Your task to perform on an android device: What's the weather going to be this weekend? Image 0: 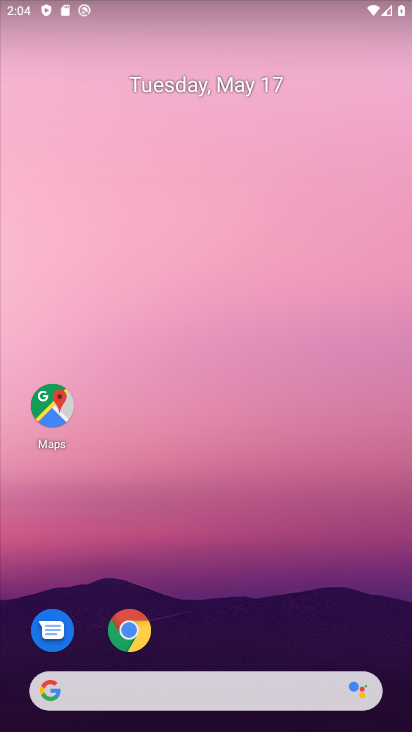
Step 0: drag from (268, 690) to (209, 274)
Your task to perform on an android device: What's the weather going to be this weekend? Image 1: 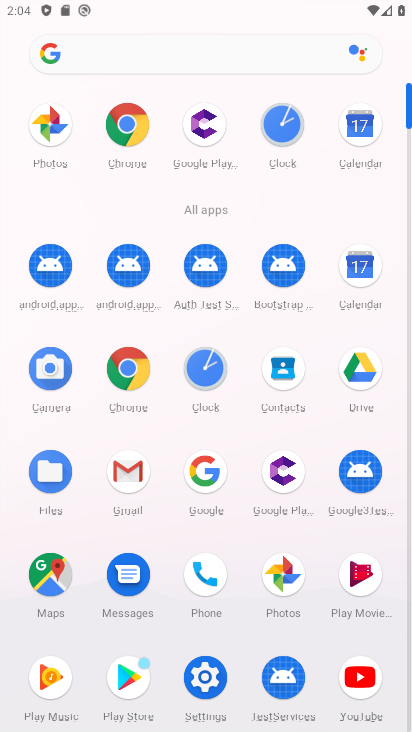
Step 1: press home button
Your task to perform on an android device: What's the weather going to be this weekend? Image 2: 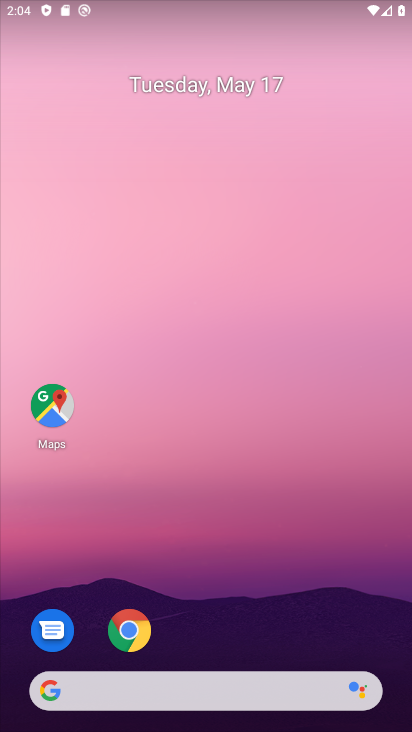
Step 2: drag from (1, 231) to (354, 302)
Your task to perform on an android device: What's the weather going to be this weekend? Image 3: 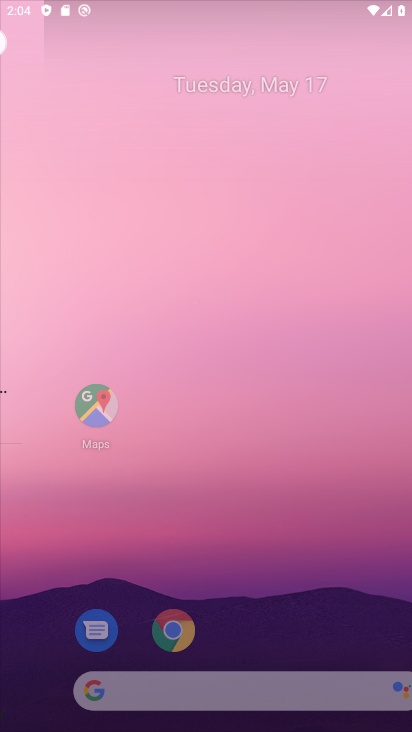
Step 3: drag from (13, 230) to (410, 322)
Your task to perform on an android device: What's the weather going to be this weekend? Image 4: 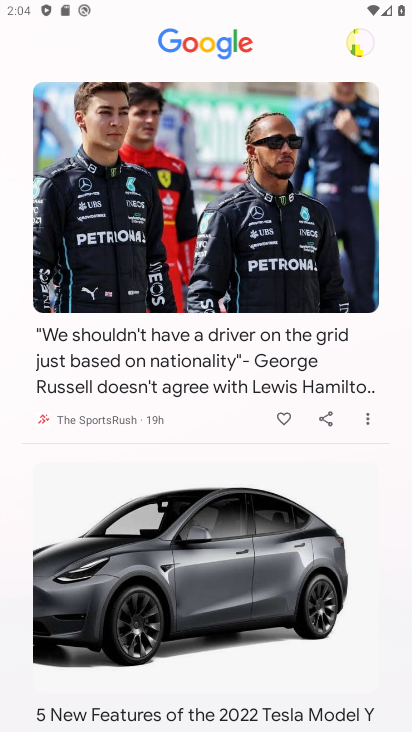
Step 4: drag from (137, 164) to (260, 636)
Your task to perform on an android device: What's the weather going to be this weekend? Image 5: 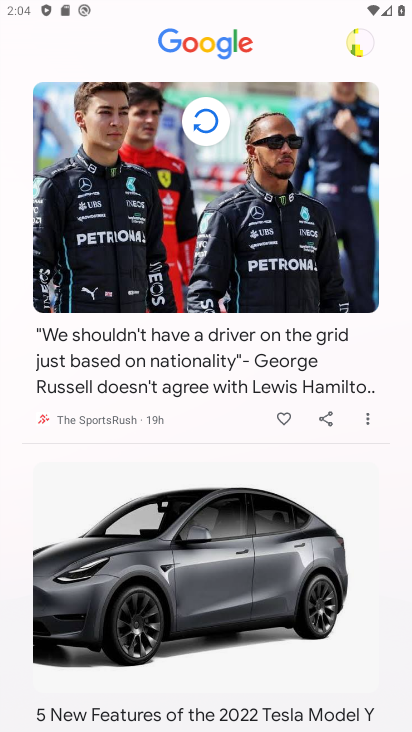
Step 5: drag from (136, 272) to (249, 592)
Your task to perform on an android device: What's the weather going to be this weekend? Image 6: 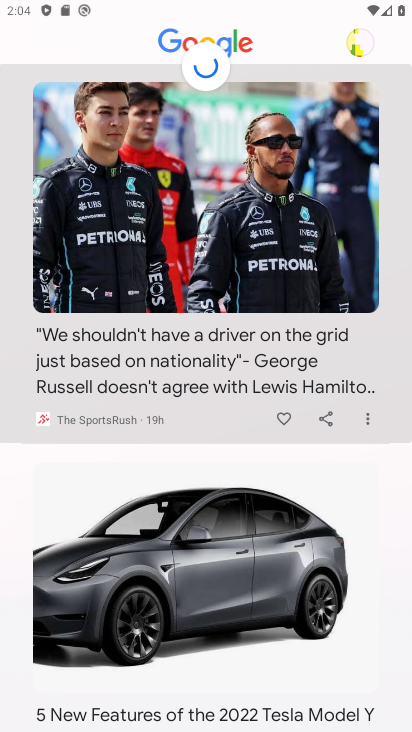
Step 6: drag from (188, 297) to (239, 705)
Your task to perform on an android device: What's the weather going to be this weekend? Image 7: 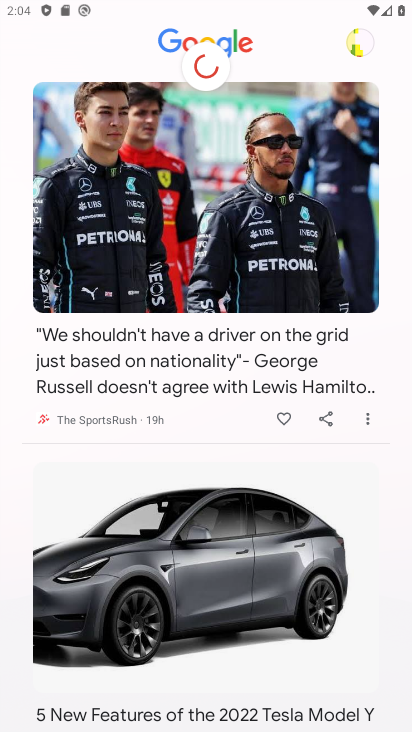
Step 7: drag from (202, 203) to (272, 489)
Your task to perform on an android device: What's the weather going to be this weekend? Image 8: 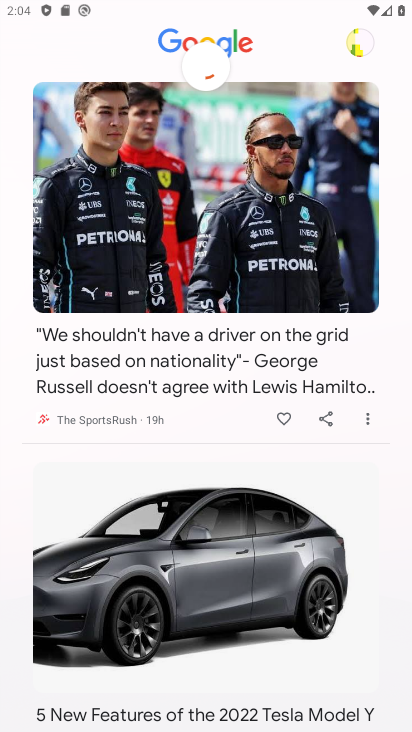
Step 8: drag from (172, 179) to (140, 351)
Your task to perform on an android device: What's the weather going to be this weekend? Image 9: 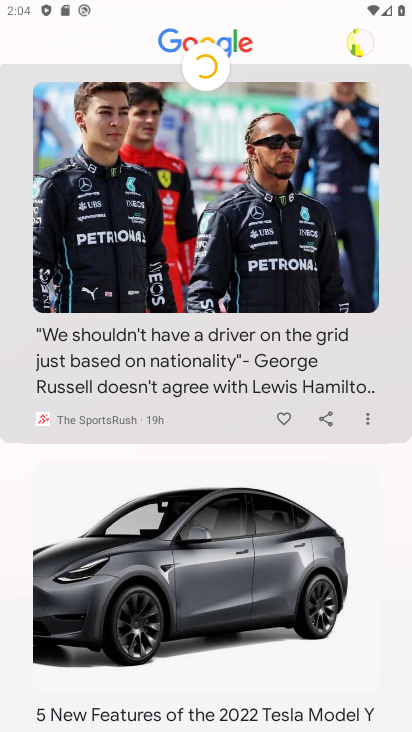
Step 9: drag from (182, 300) to (222, 420)
Your task to perform on an android device: What's the weather going to be this weekend? Image 10: 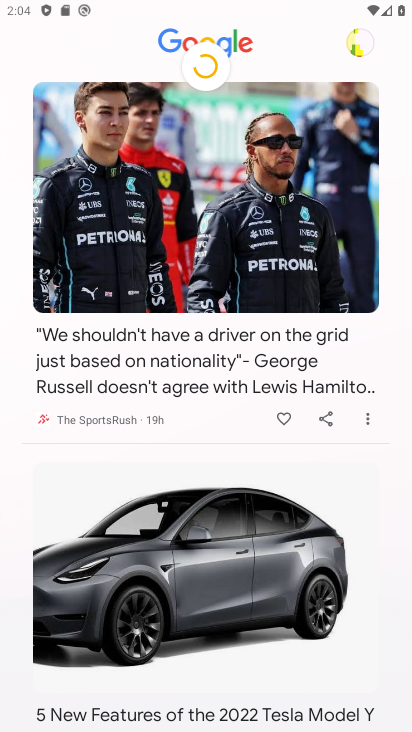
Step 10: drag from (178, 188) to (252, 494)
Your task to perform on an android device: What's the weather going to be this weekend? Image 11: 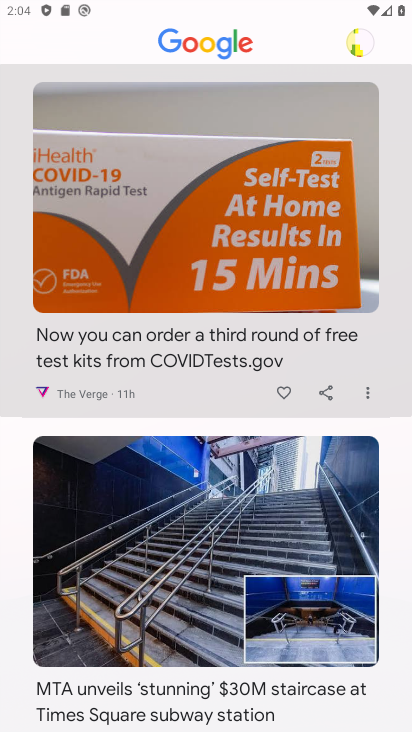
Step 11: drag from (217, 205) to (244, 421)
Your task to perform on an android device: What's the weather going to be this weekend? Image 12: 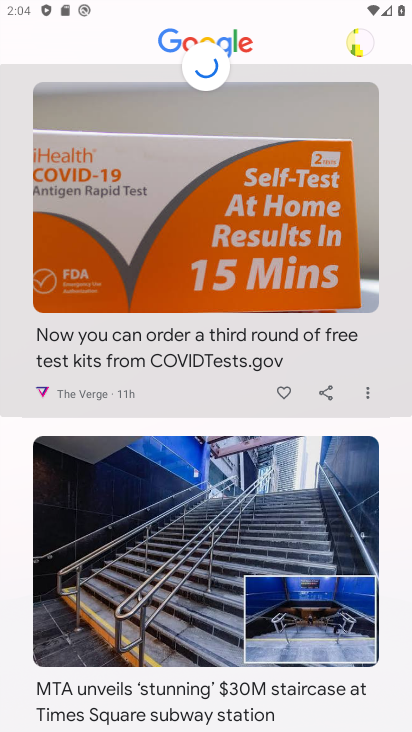
Step 12: drag from (251, 370) to (234, 649)
Your task to perform on an android device: What's the weather going to be this weekend? Image 13: 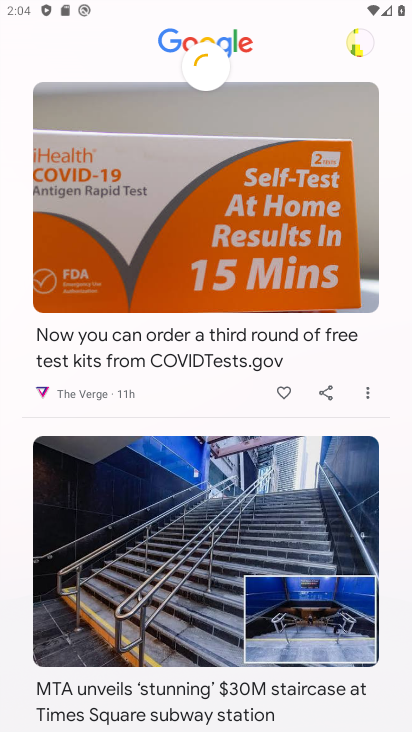
Step 13: drag from (175, 296) to (255, 606)
Your task to perform on an android device: What's the weather going to be this weekend? Image 14: 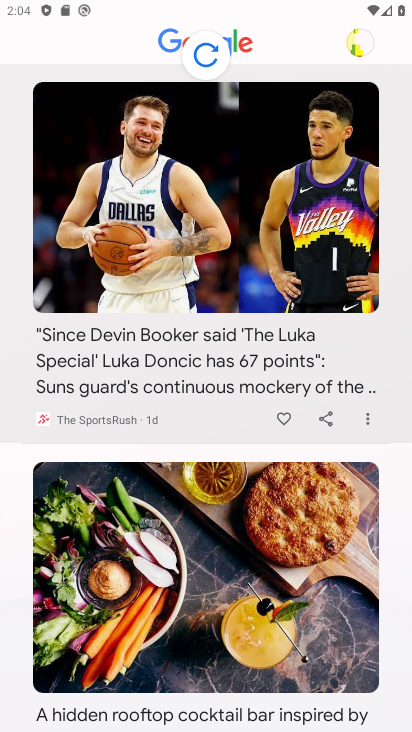
Step 14: drag from (248, 302) to (301, 522)
Your task to perform on an android device: What's the weather going to be this weekend? Image 15: 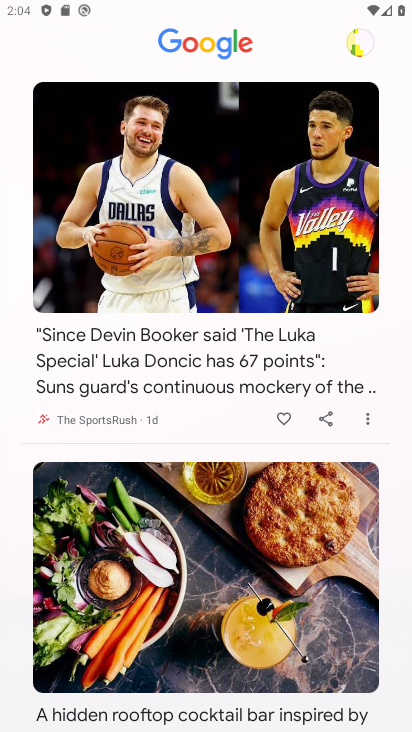
Step 15: drag from (163, 246) to (298, 635)
Your task to perform on an android device: What's the weather going to be this weekend? Image 16: 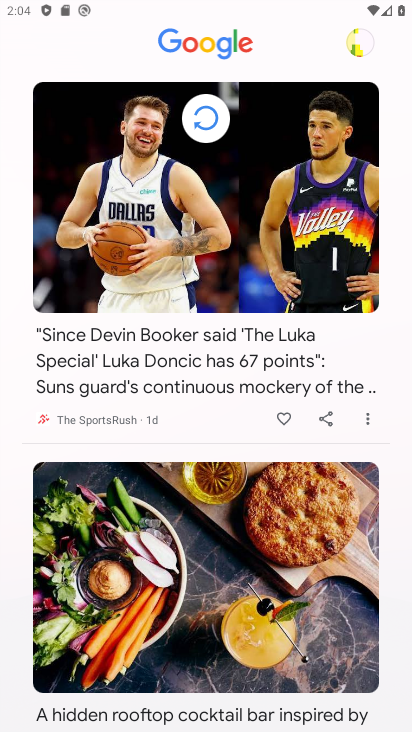
Step 16: drag from (231, 347) to (287, 563)
Your task to perform on an android device: What's the weather going to be this weekend? Image 17: 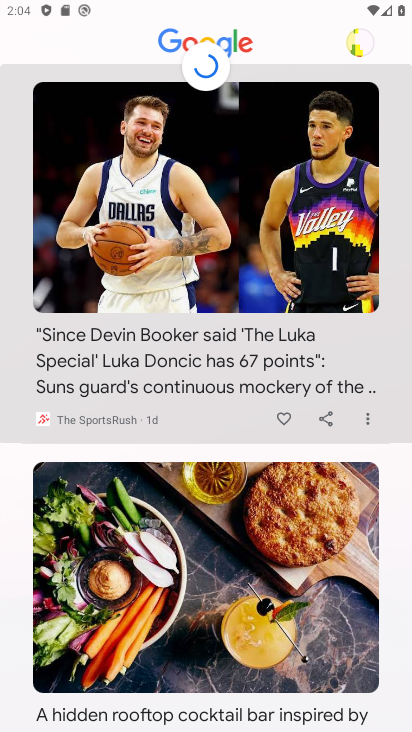
Step 17: drag from (190, 261) to (295, 602)
Your task to perform on an android device: What's the weather going to be this weekend? Image 18: 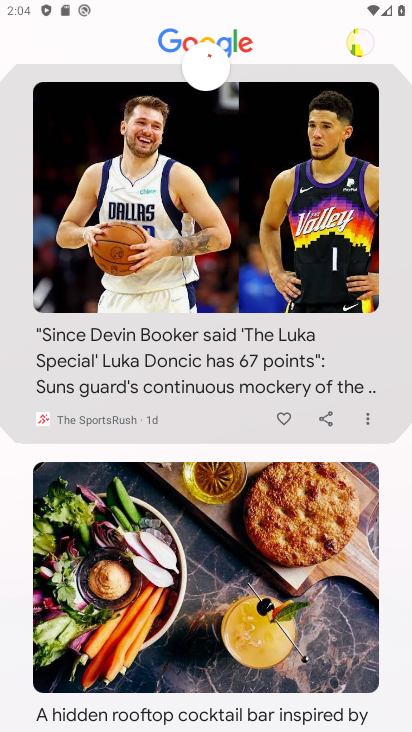
Step 18: drag from (233, 342) to (268, 617)
Your task to perform on an android device: What's the weather going to be this weekend? Image 19: 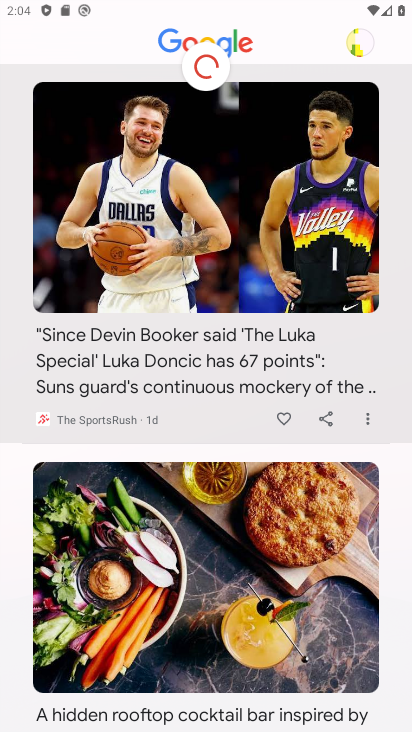
Step 19: click (262, 515)
Your task to perform on an android device: What's the weather going to be this weekend? Image 20: 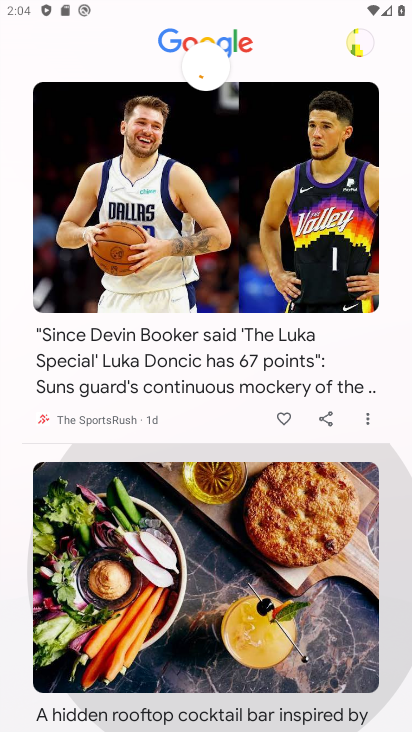
Step 20: task complete